Your task to perform on an android device: add a contact Image 0: 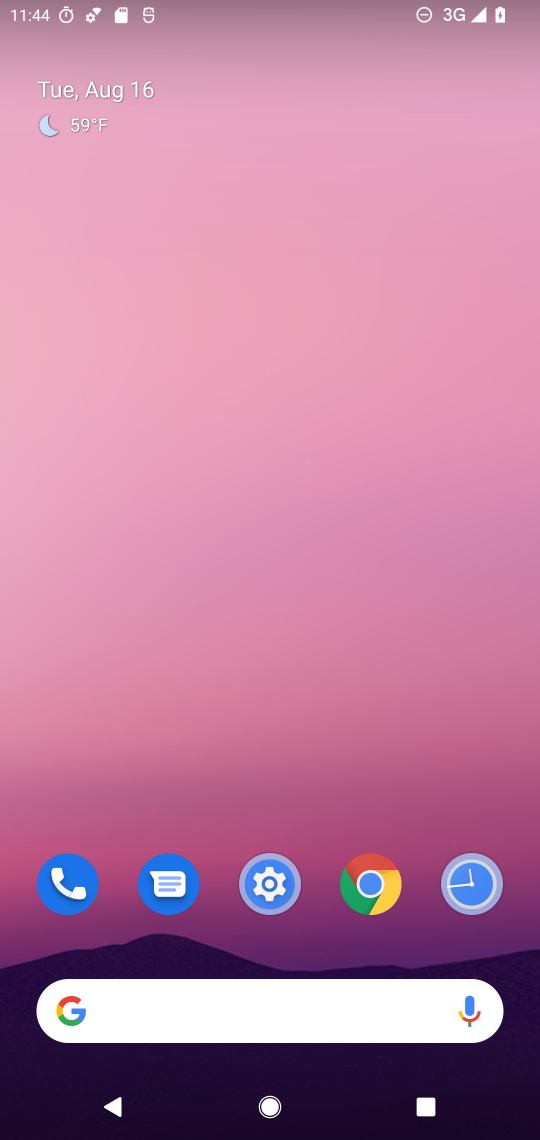
Step 0: drag from (232, 753) to (219, 150)
Your task to perform on an android device: add a contact Image 1: 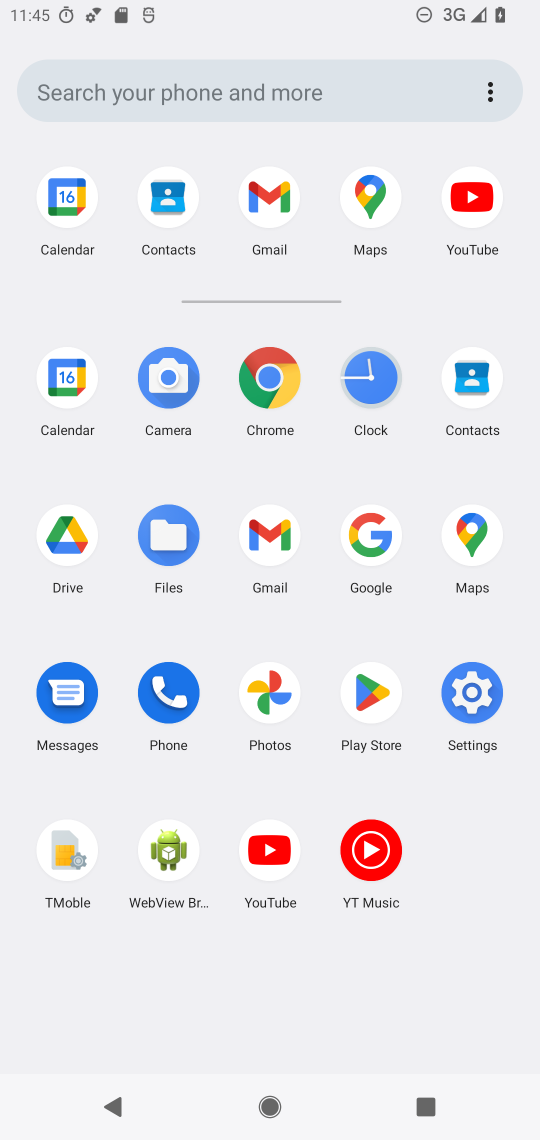
Step 1: click (473, 389)
Your task to perform on an android device: add a contact Image 2: 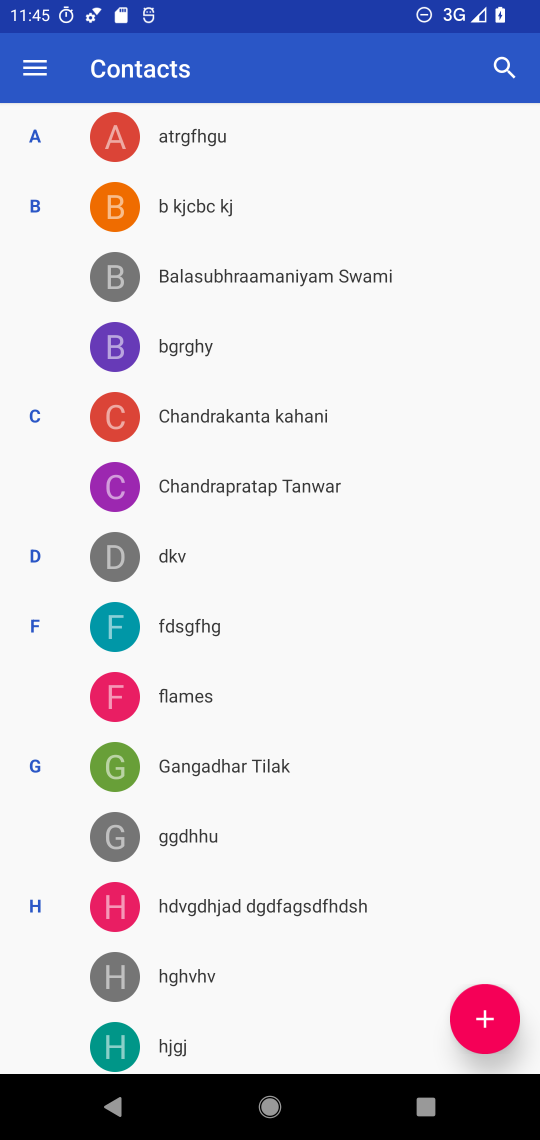
Step 2: click (487, 1012)
Your task to perform on an android device: add a contact Image 3: 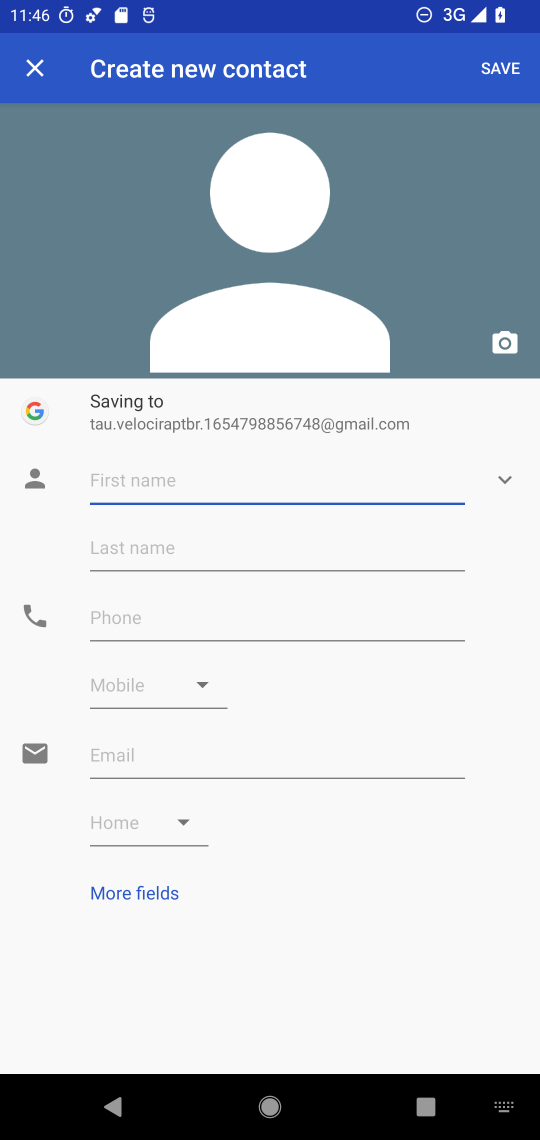
Step 3: type "Cow"
Your task to perform on an android device: add a contact Image 4: 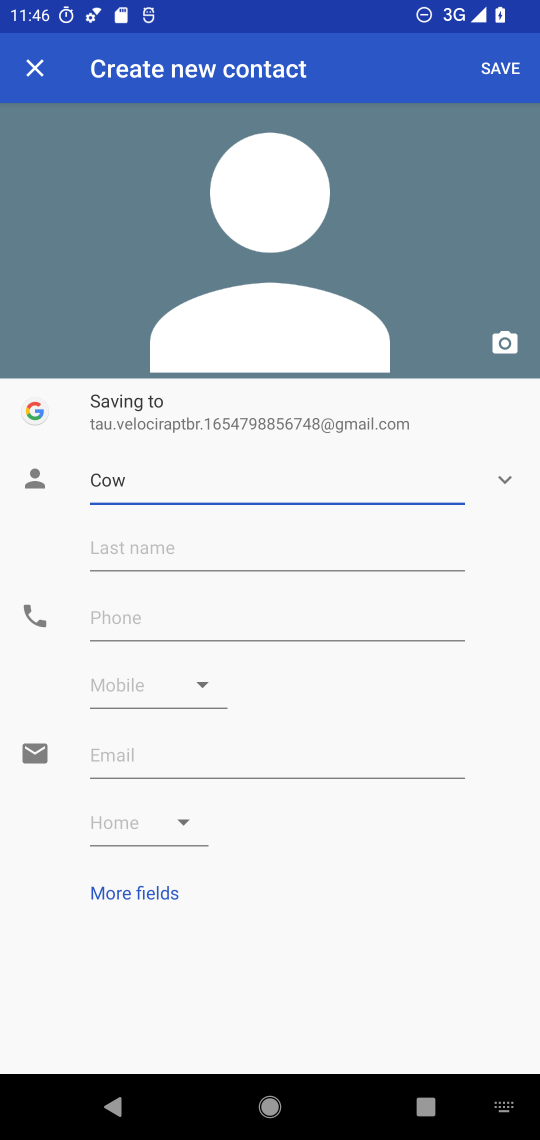
Step 4: click (317, 556)
Your task to perform on an android device: add a contact Image 5: 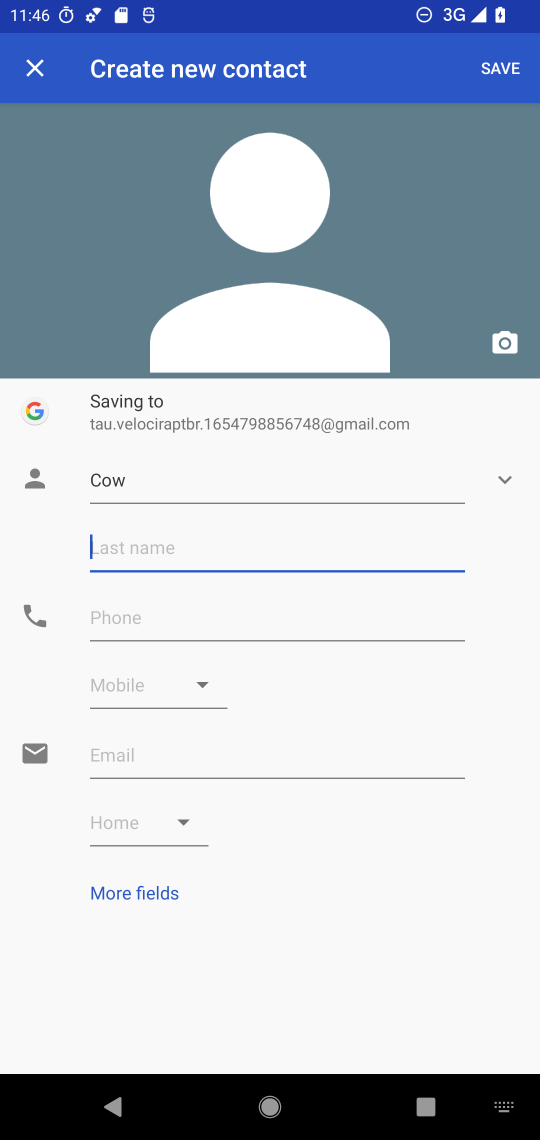
Step 5: click (229, 625)
Your task to perform on an android device: add a contact Image 6: 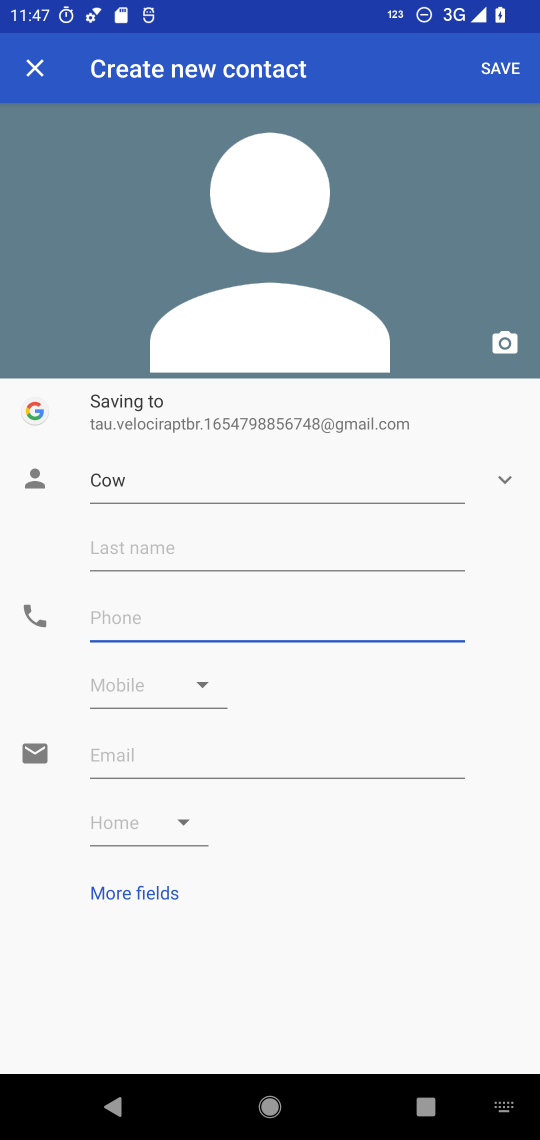
Step 6: type "8900987890"
Your task to perform on an android device: add a contact Image 7: 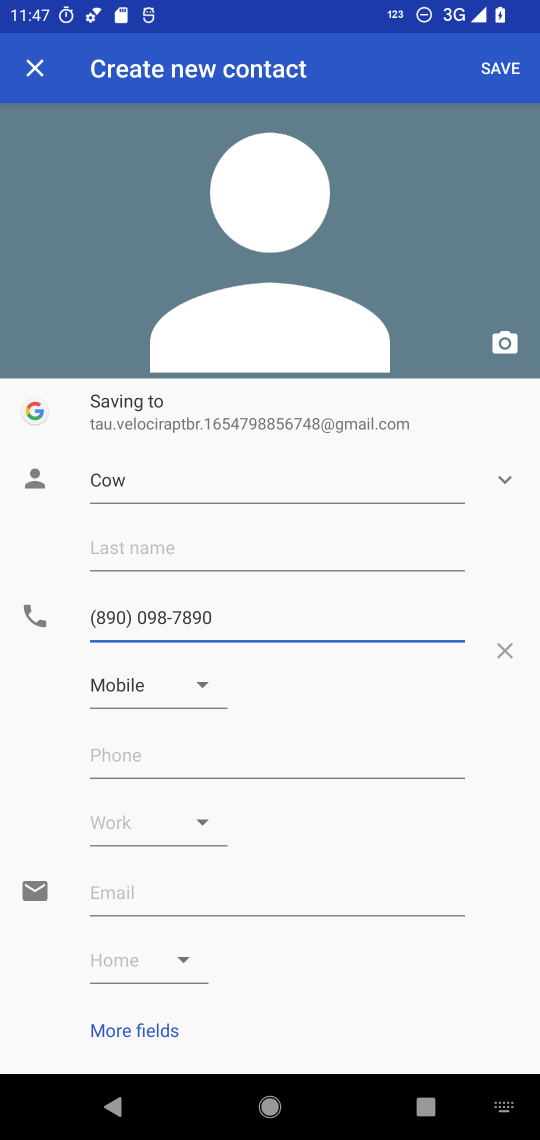
Step 7: click (516, 75)
Your task to perform on an android device: add a contact Image 8: 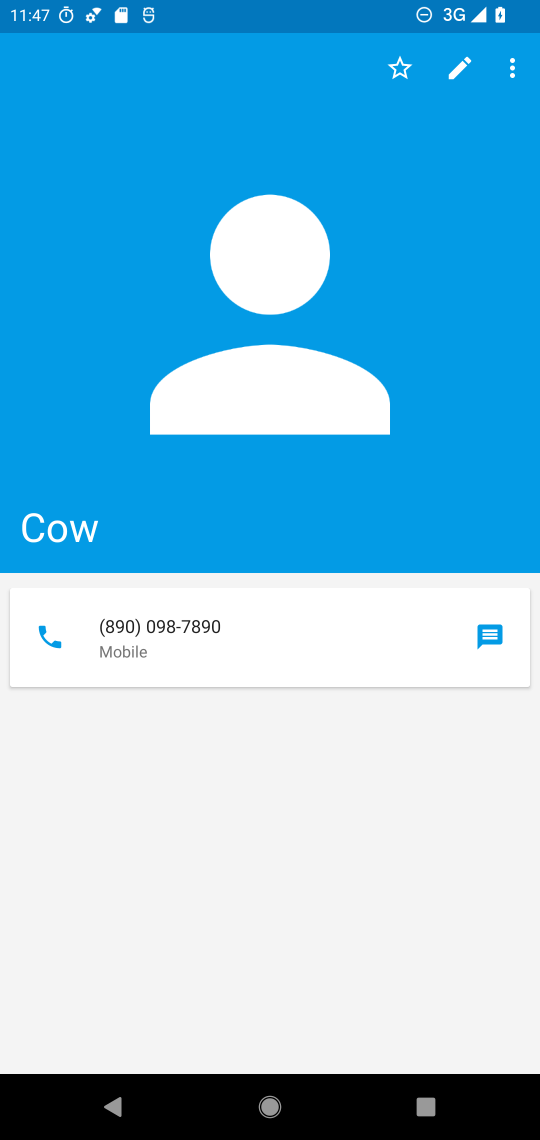
Step 8: task complete